Your task to perform on an android device: open app "Venmo" (install if not already installed), go to login, and select forgot password Image 0: 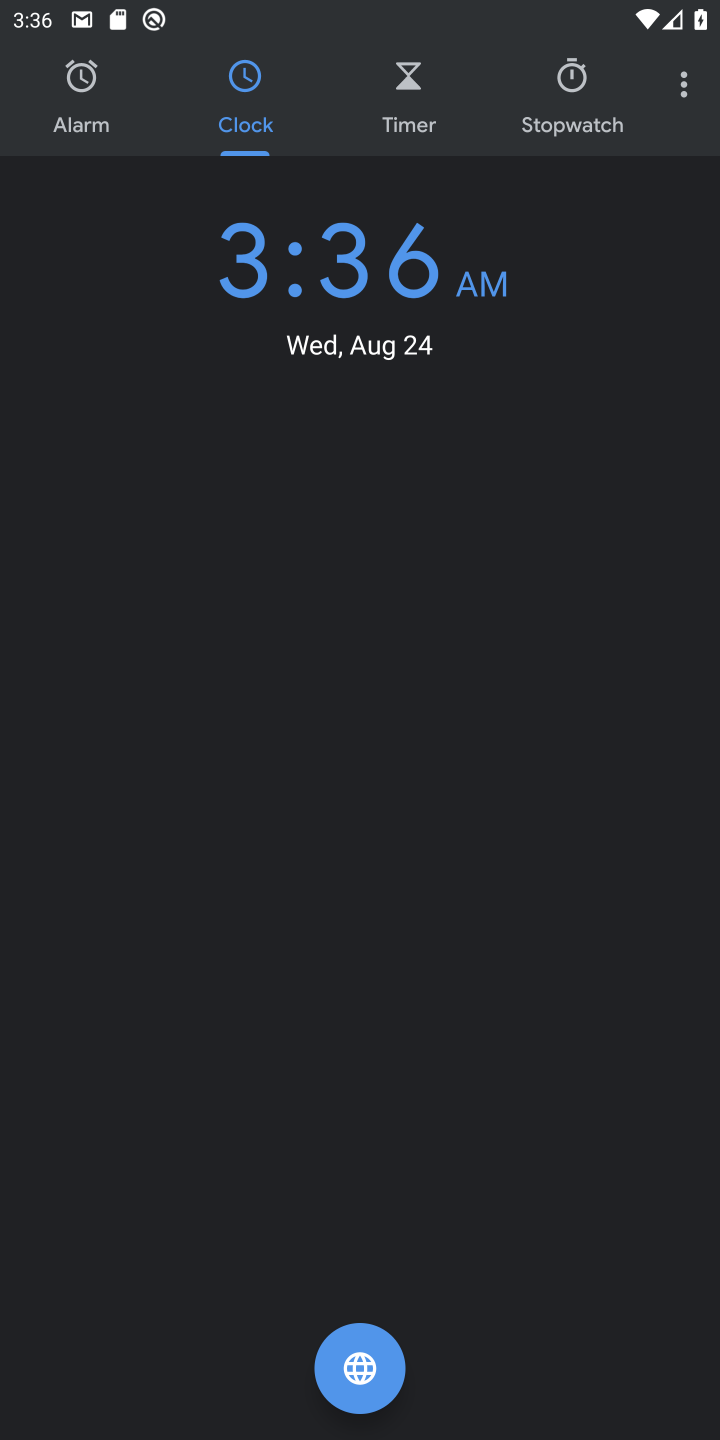
Step 0: press back button
Your task to perform on an android device: open app "Venmo" (install if not already installed), go to login, and select forgot password Image 1: 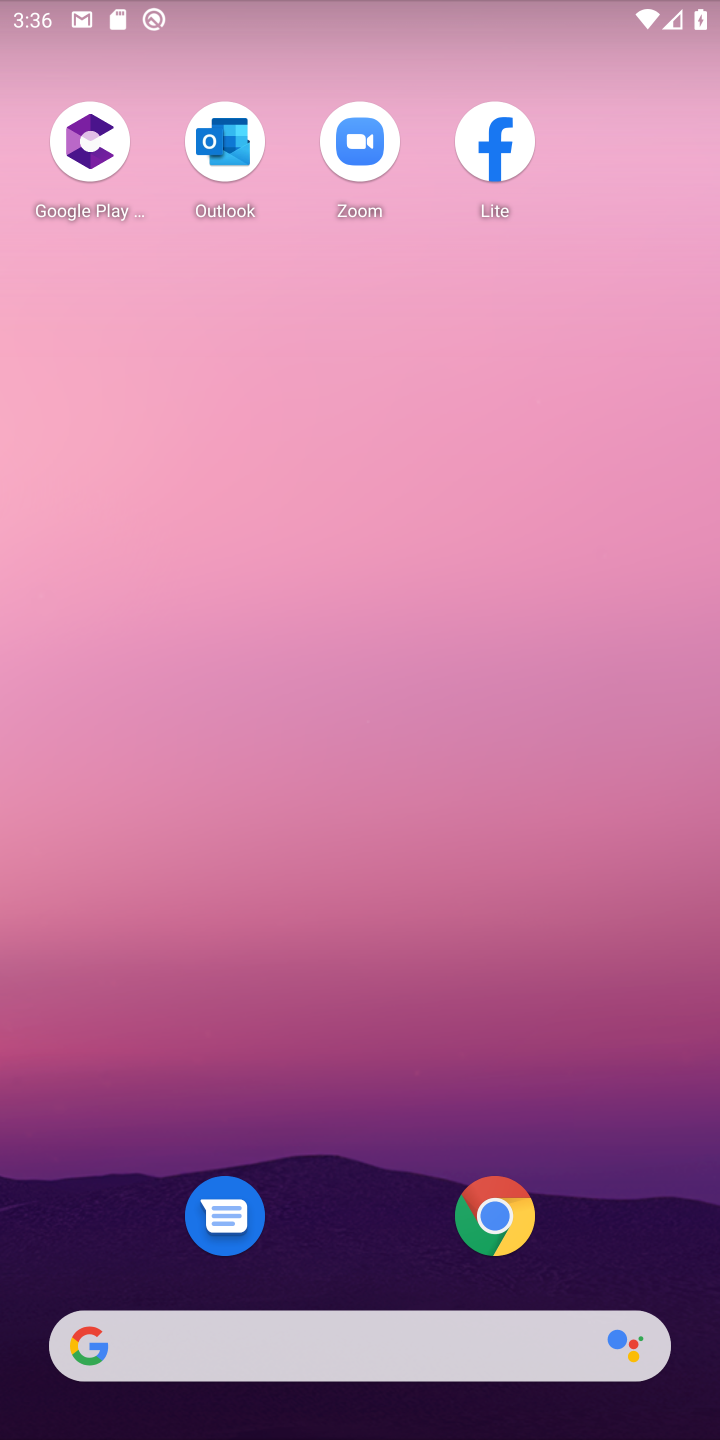
Step 1: press back button
Your task to perform on an android device: open app "Venmo" (install if not already installed), go to login, and select forgot password Image 2: 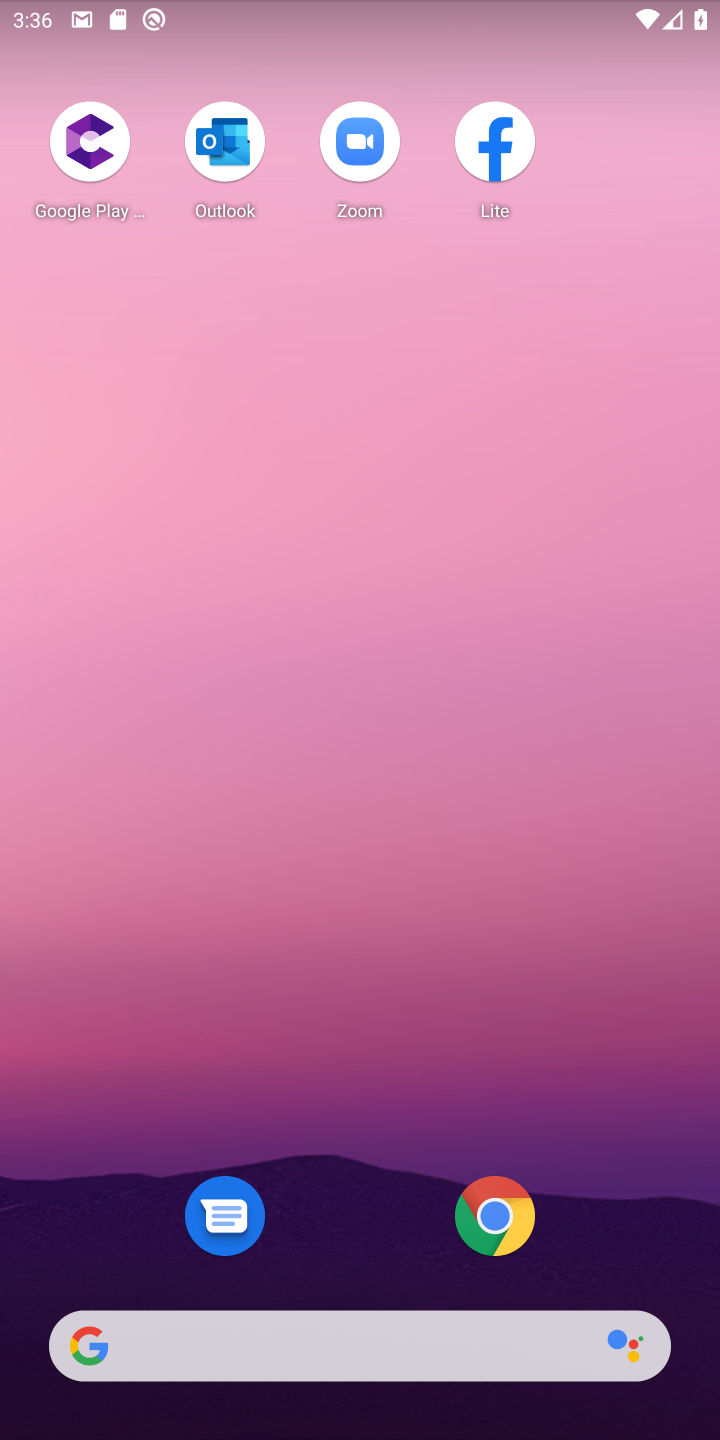
Step 2: drag from (380, 1030) to (547, 190)
Your task to perform on an android device: open app "Venmo" (install if not already installed), go to login, and select forgot password Image 3: 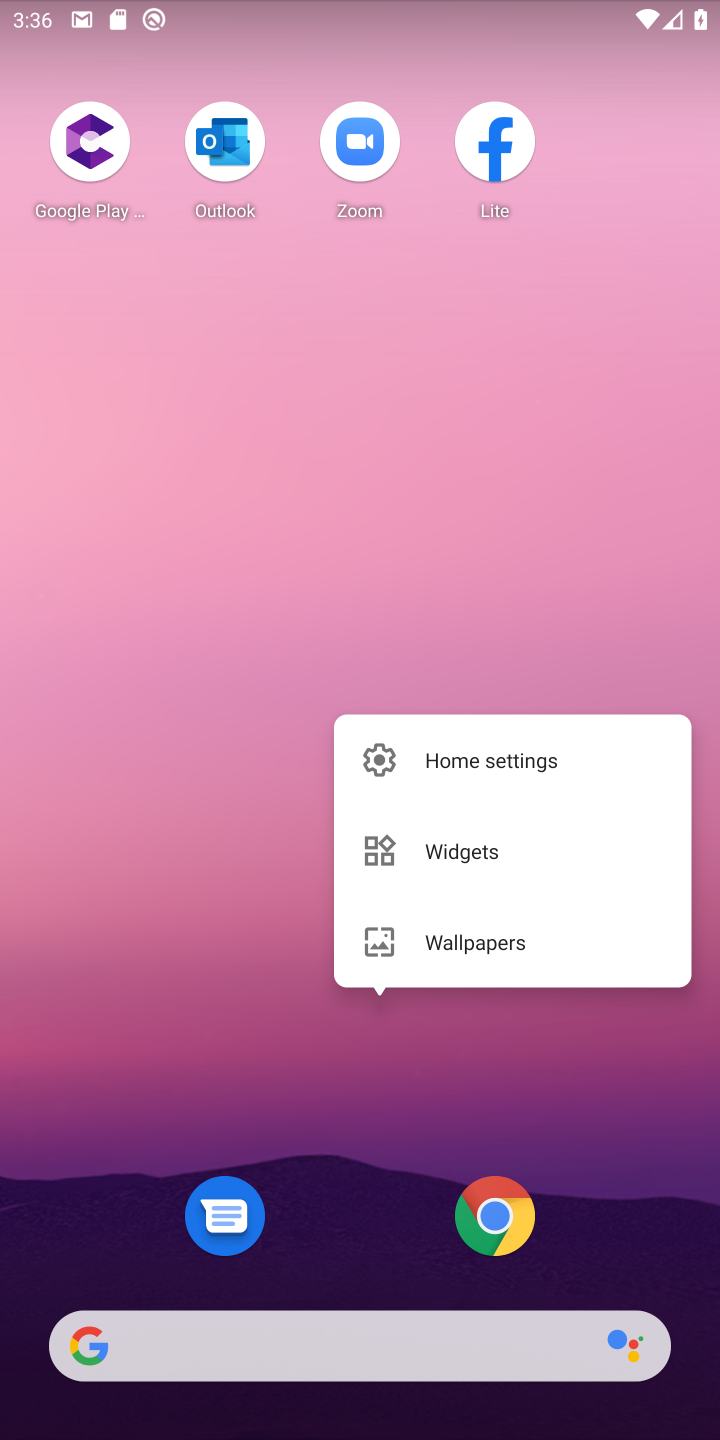
Step 3: click (190, 910)
Your task to perform on an android device: open app "Venmo" (install if not already installed), go to login, and select forgot password Image 4: 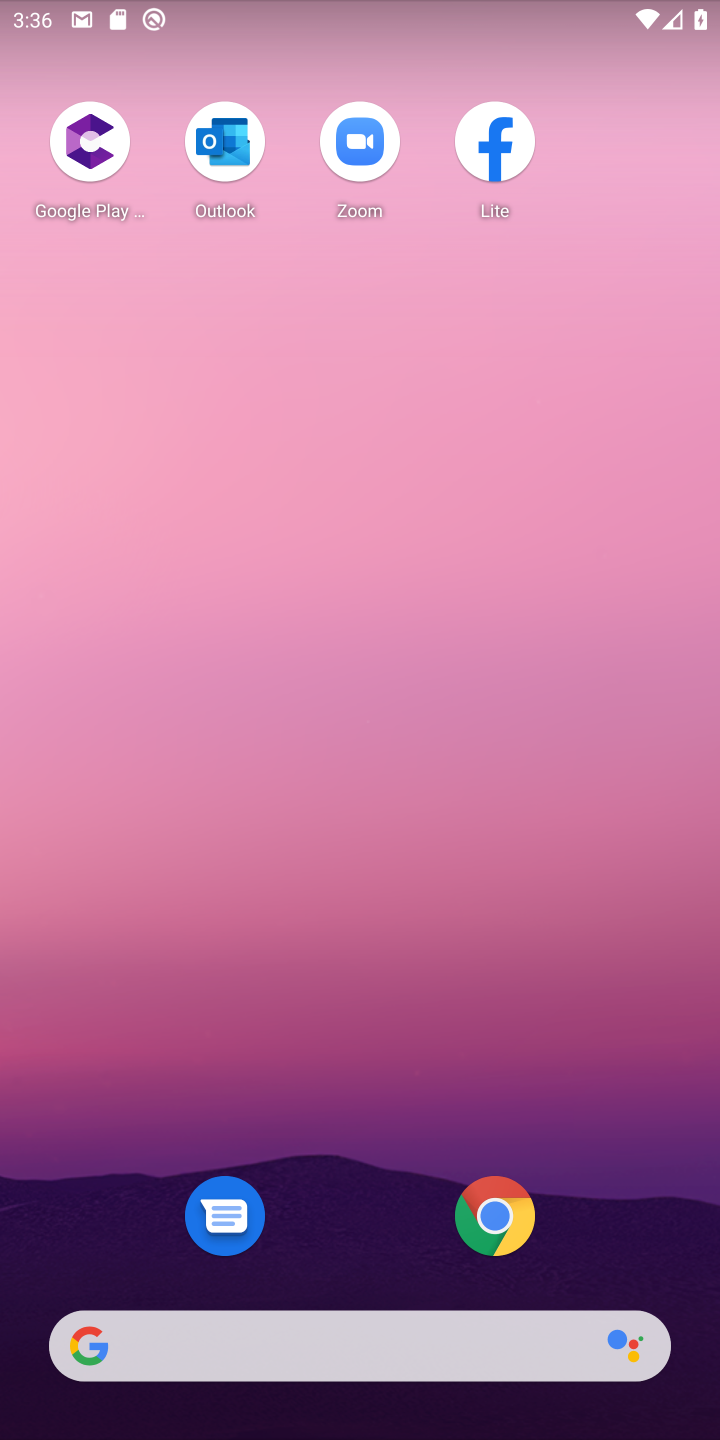
Step 4: drag from (316, 859) to (317, 313)
Your task to perform on an android device: open app "Venmo" (install if not already installed), go to login, and select forgot password Image 5: 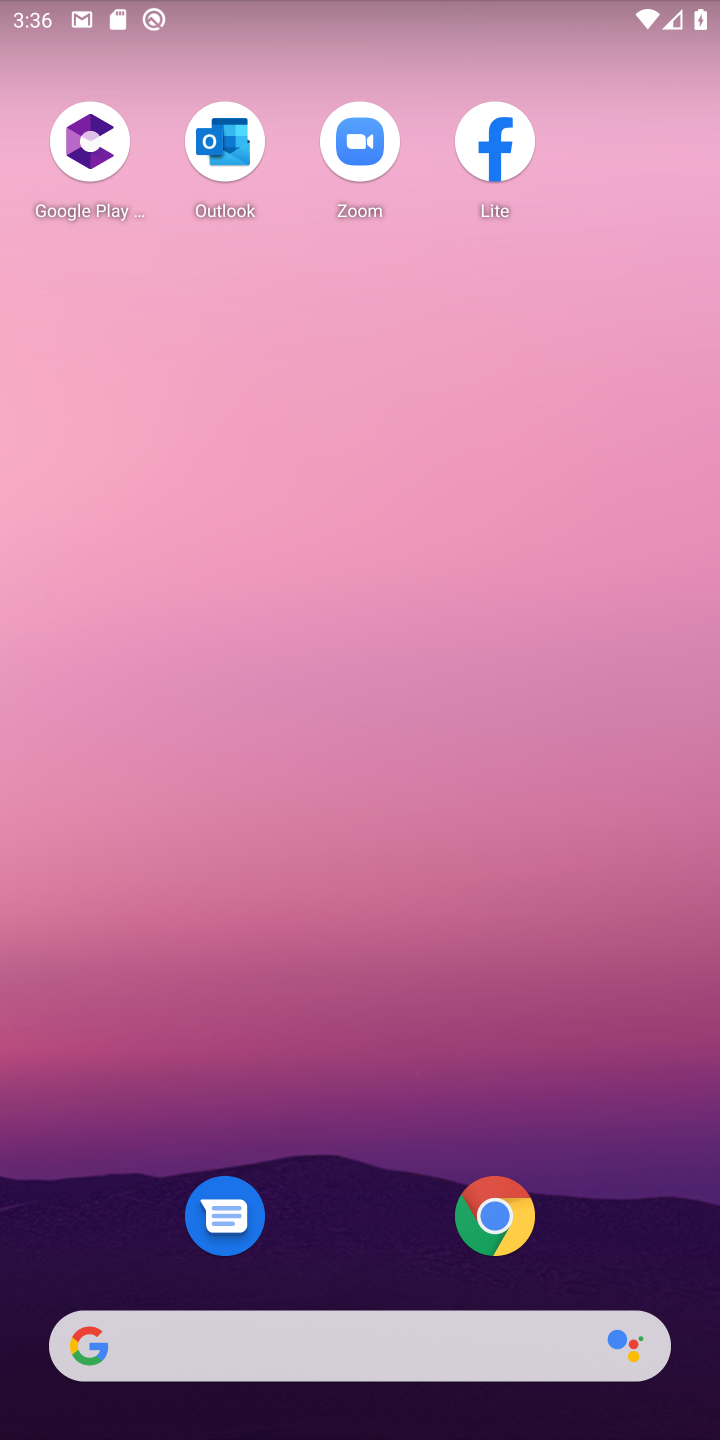
Step 5: drag from (374, 1144) to (493, 120)
Your task to perform on an android device: open app "Venmo" (install if not already installed), go to login, and select forgot password Image 6: 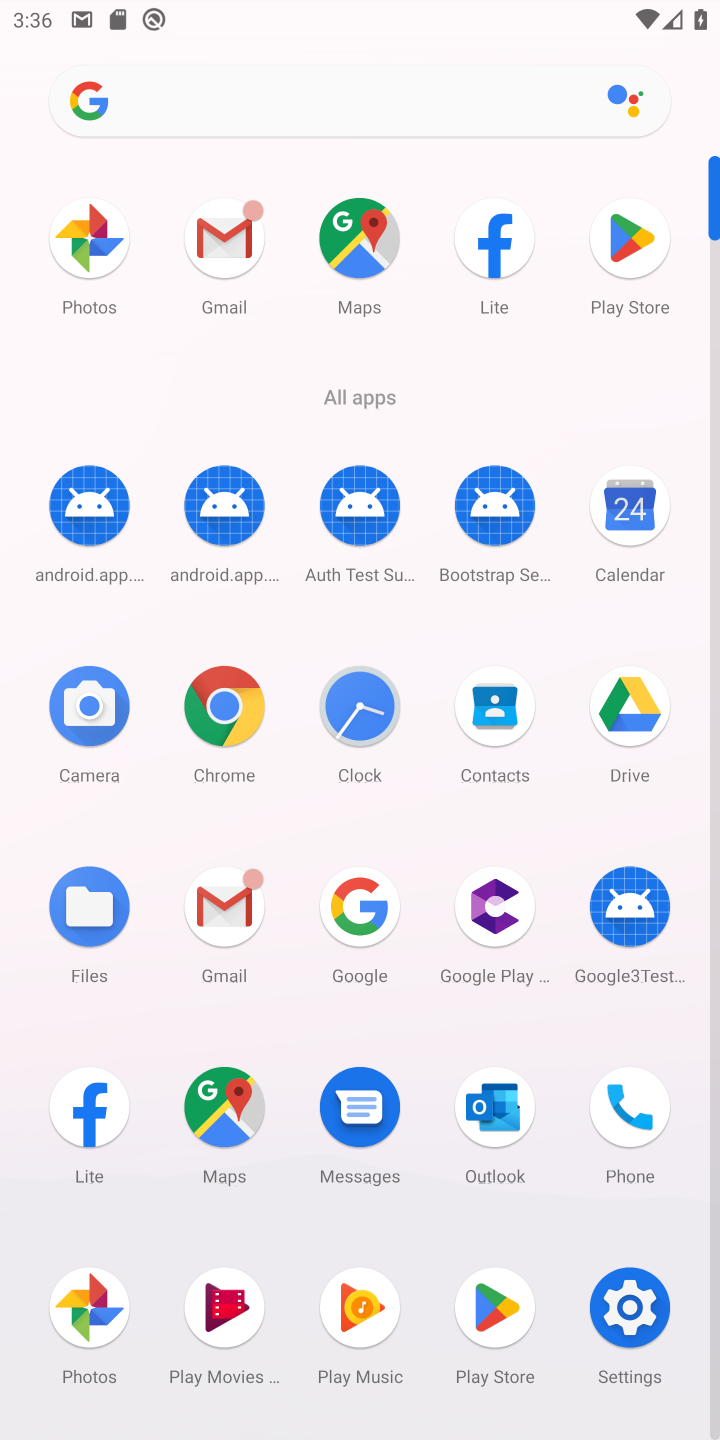
Step 6: click (626, 242)
Your task to perform on an android device: open app "Venmo" (install if not already installed), go to login, and select forgot password Image 7: 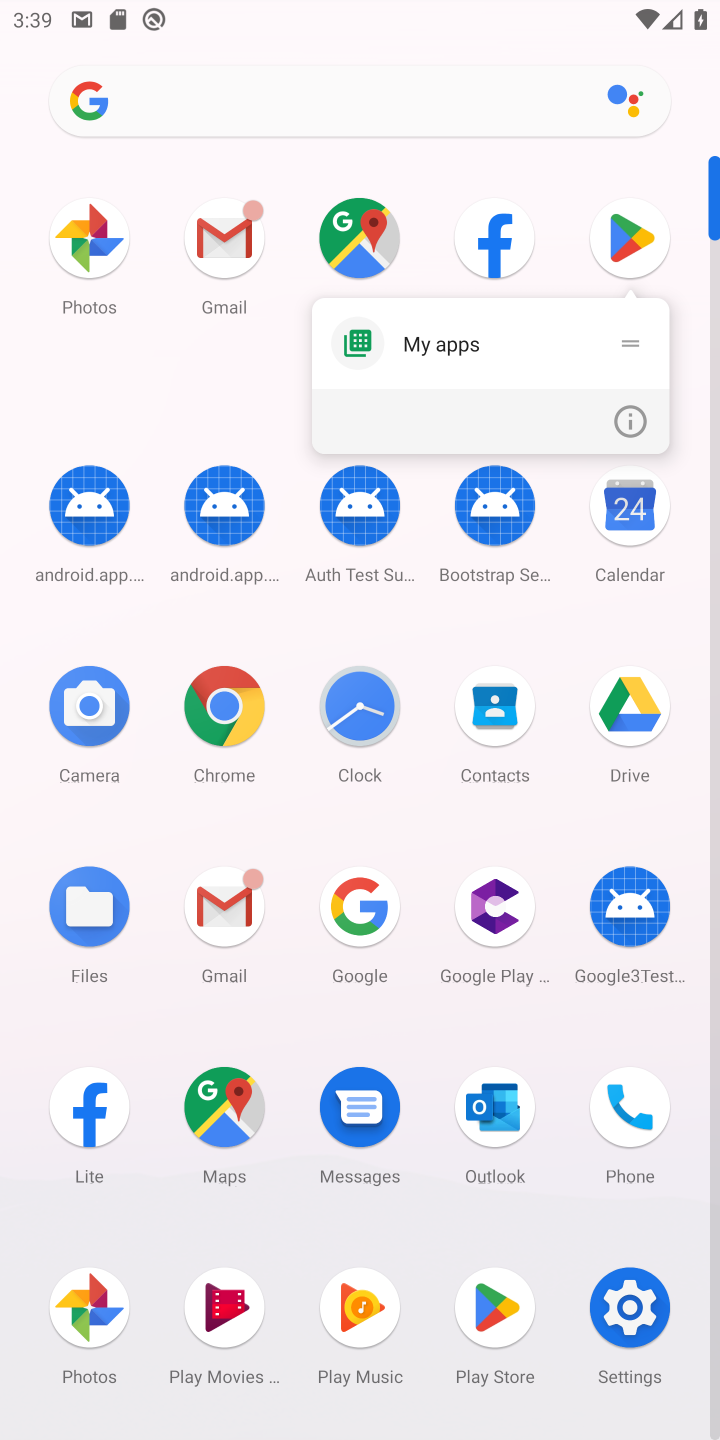
Step 7: click (635, 245)
Your task to perform on an android device: open app "Venmo" (install if not already installed), go to login, and select forgot password Image 8: 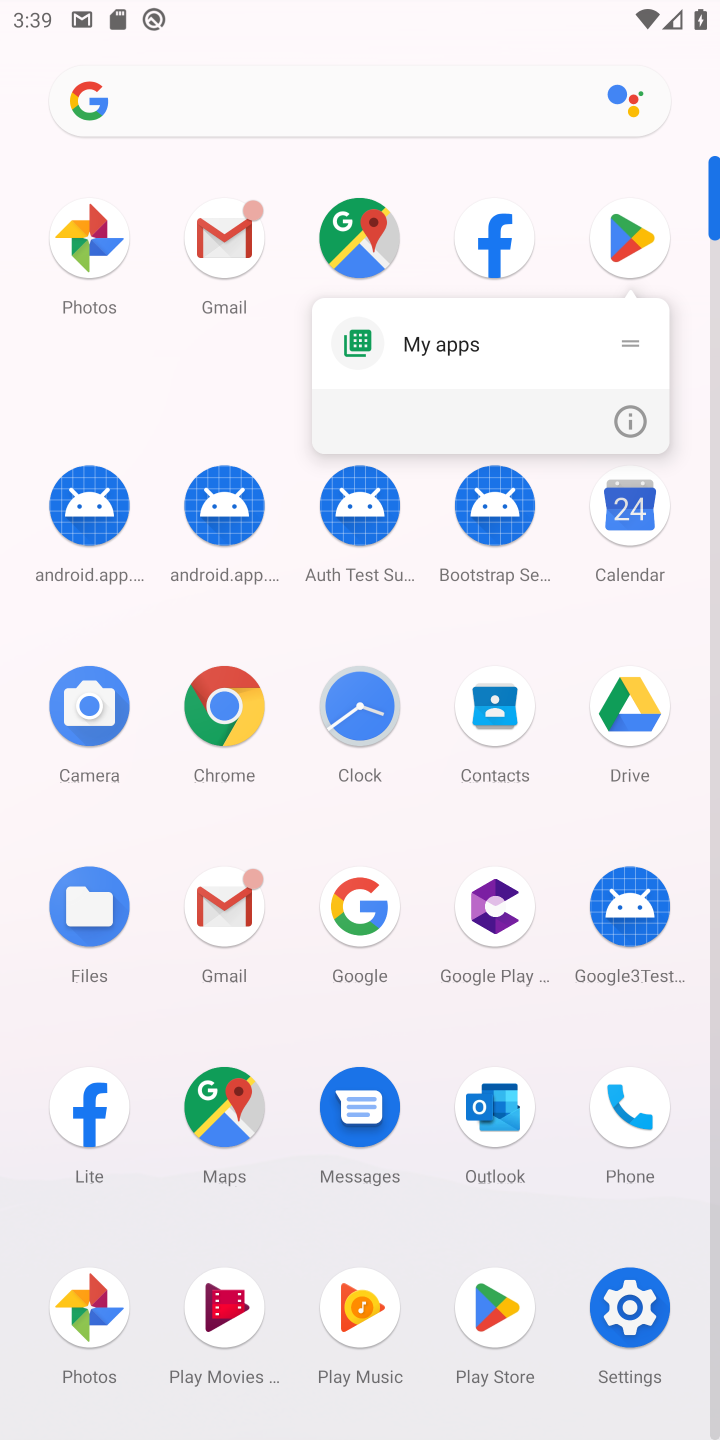
Step 8: click (630, 227)
Your task to perform on an android device: open app "Venmo" (install if not already installed), go to login, and select forgot password Image 9: 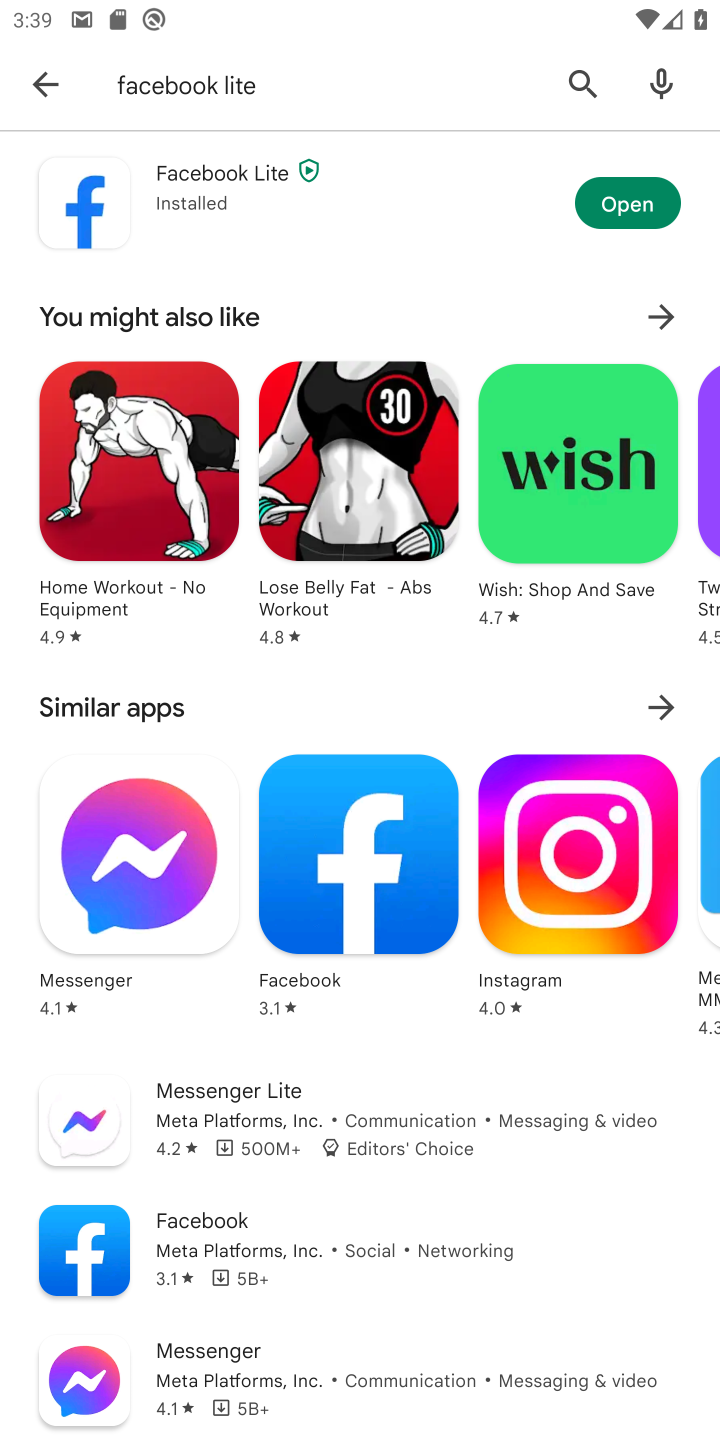
Step 9: click (580, 64)
Your task to perform on an android device: open app "Venmo" (install if not already installed), go to login, and select forgot password Image 10: 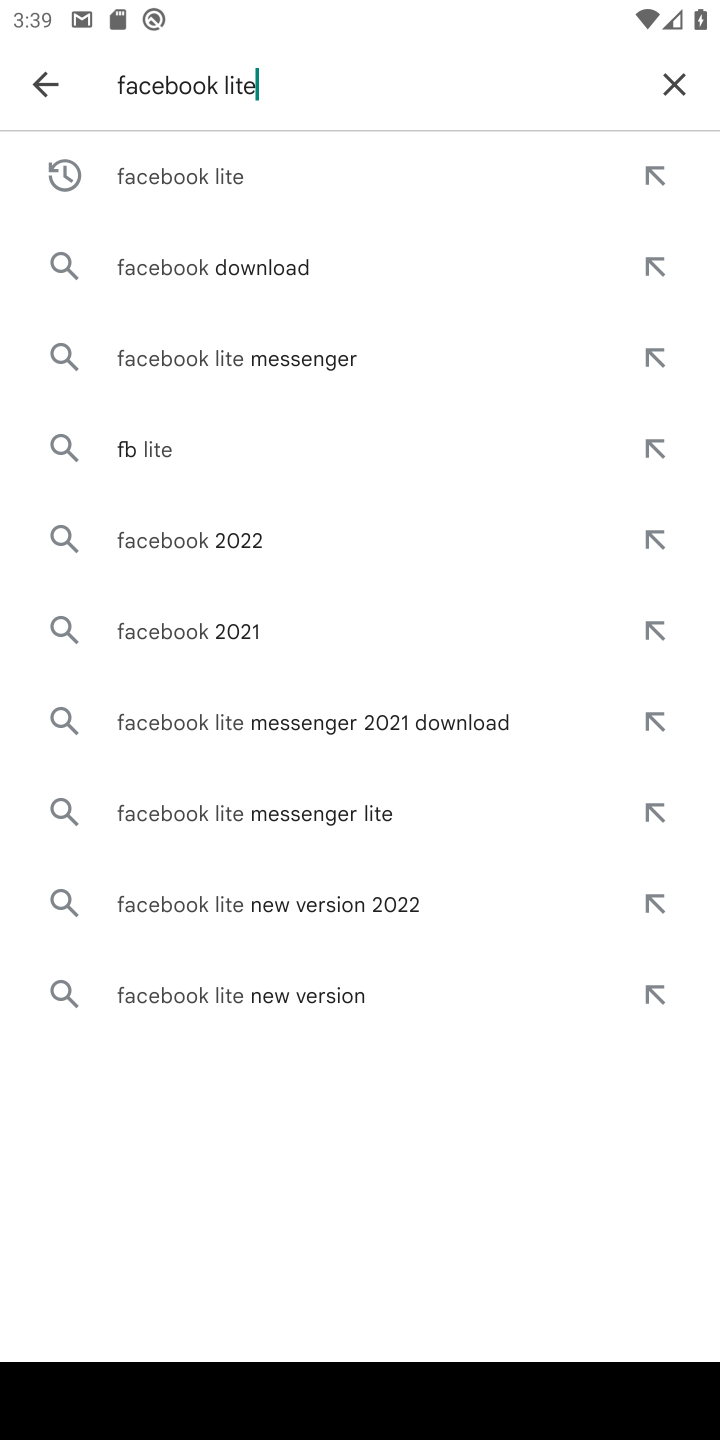
Step 10: click (666, 84)
Your task to perform on an android device: open app "Venmo" (install if not already installed), go to login, and select forgot password Image 11: 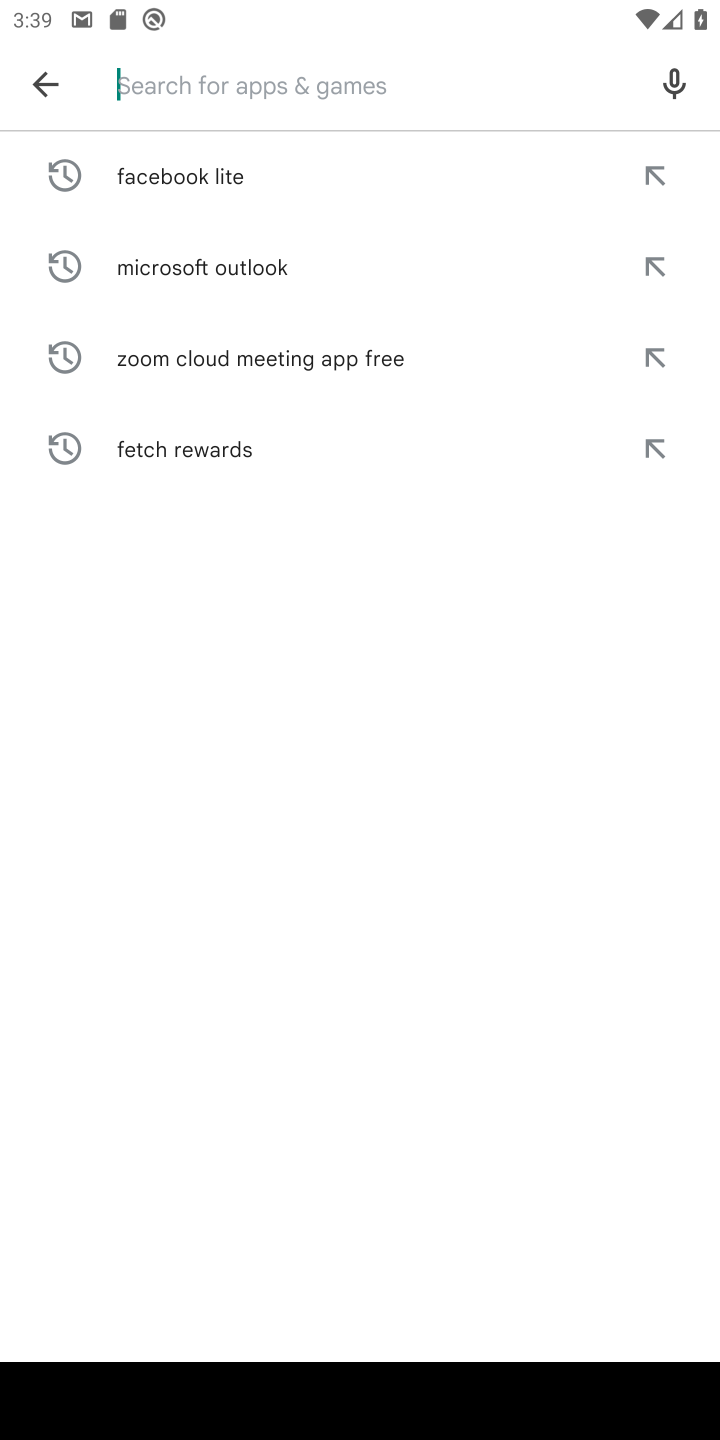
Step 11: click (199, 70)
Your task to perform on an android device: open app "Venmo" (install if not already installed), go to login, and select forgot password Image 12: 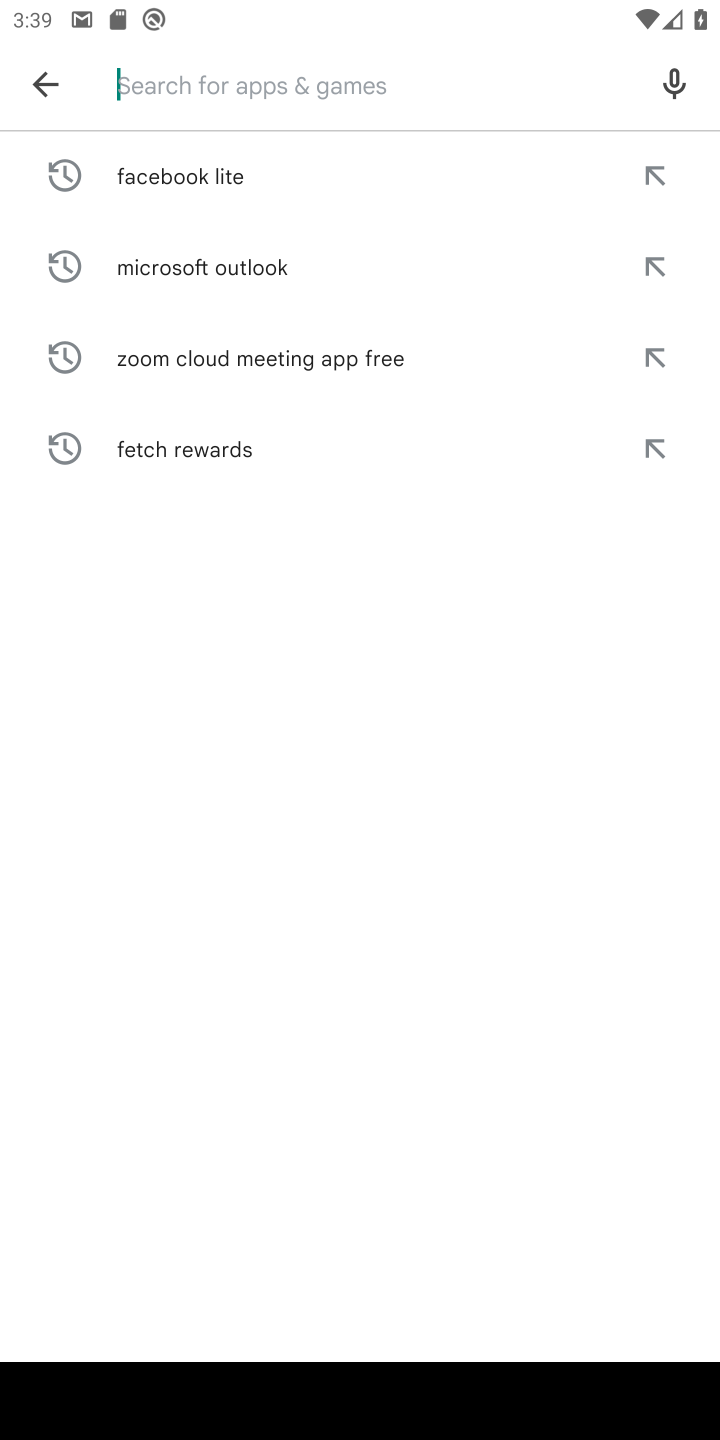
Step 12: type "Venmo"
Your task to perform on an android device: open app "Venmo" (install if not already installed), go to login, and select forgot password Image 13: 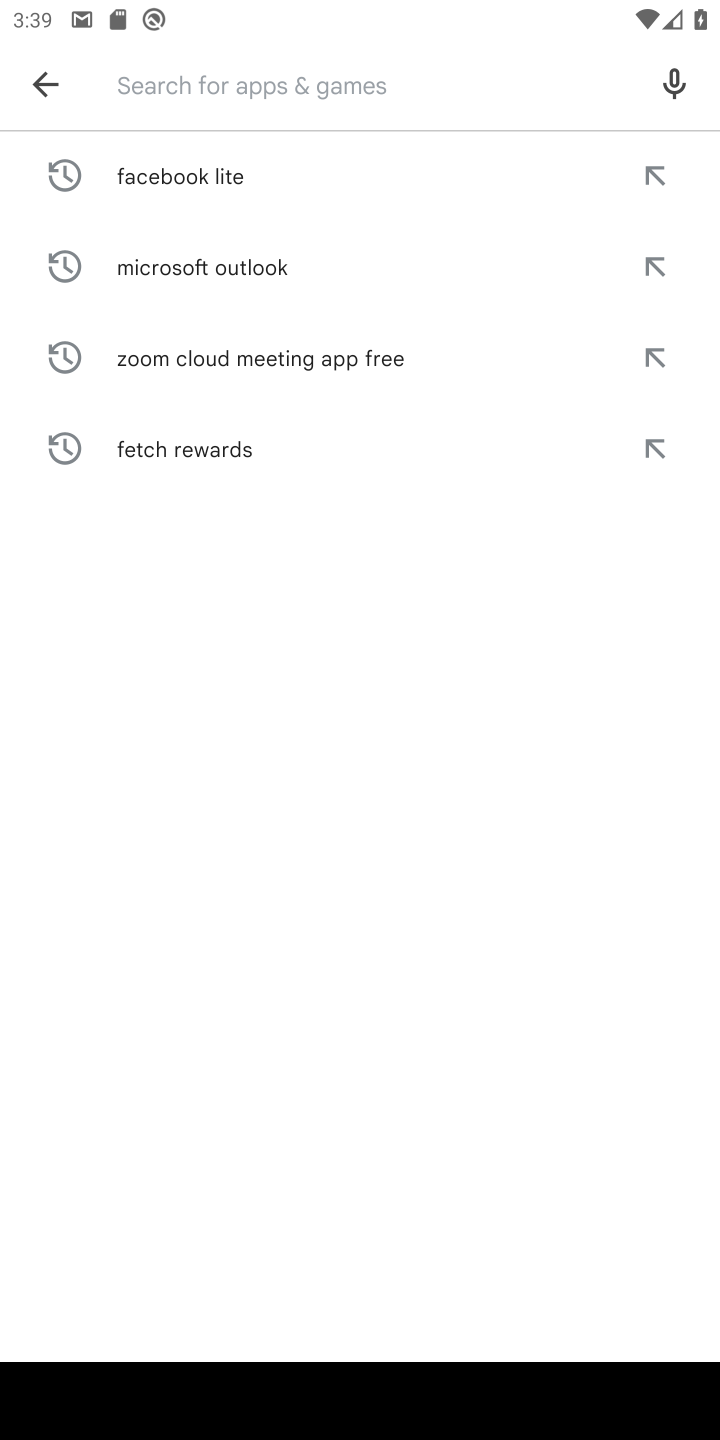
Step 13: click (460, 1060)
Your task to perform on an android device: open app "Venmo" (install if not already installed), go to login, and select forgot password Image 14: 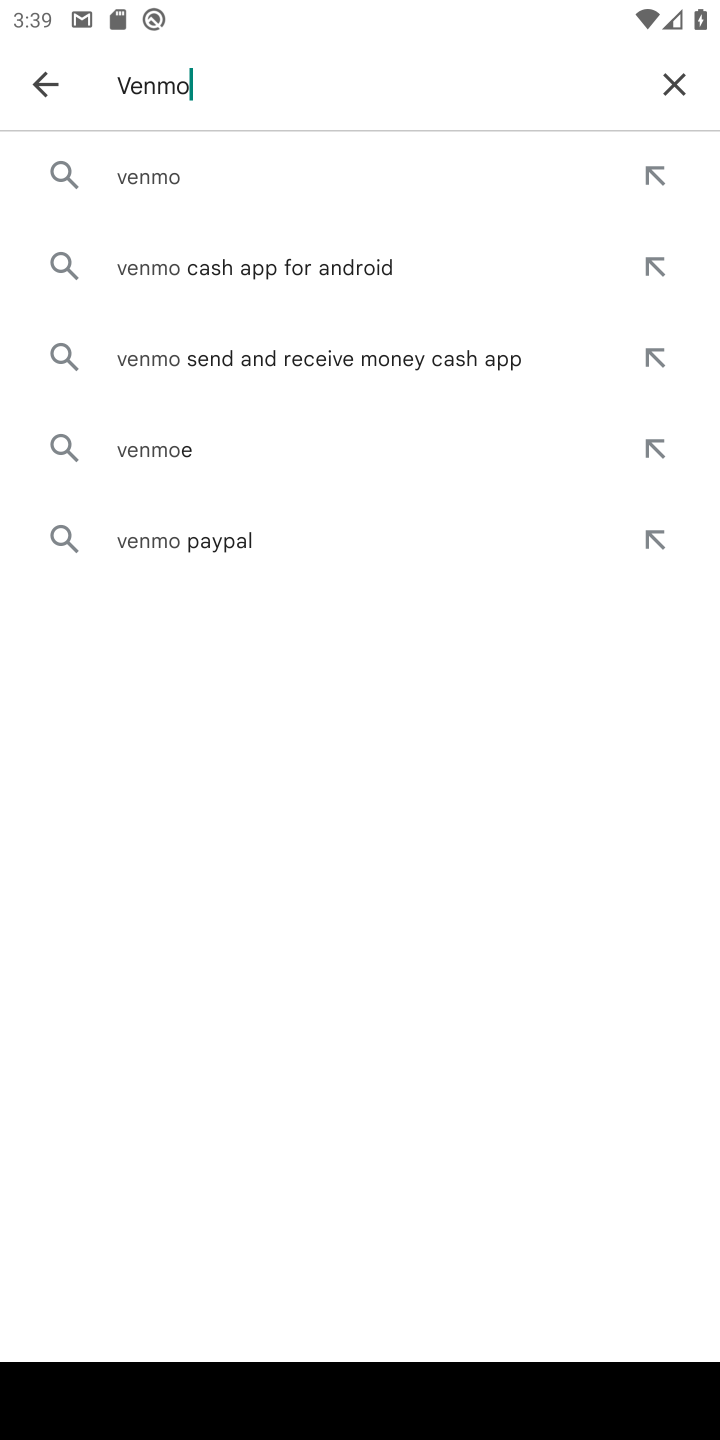
Step 14: click (167, 155)
Your task to perform on an android device: open app "Venmo" (install if not already installed), go to login, and select forgot password Image 15: 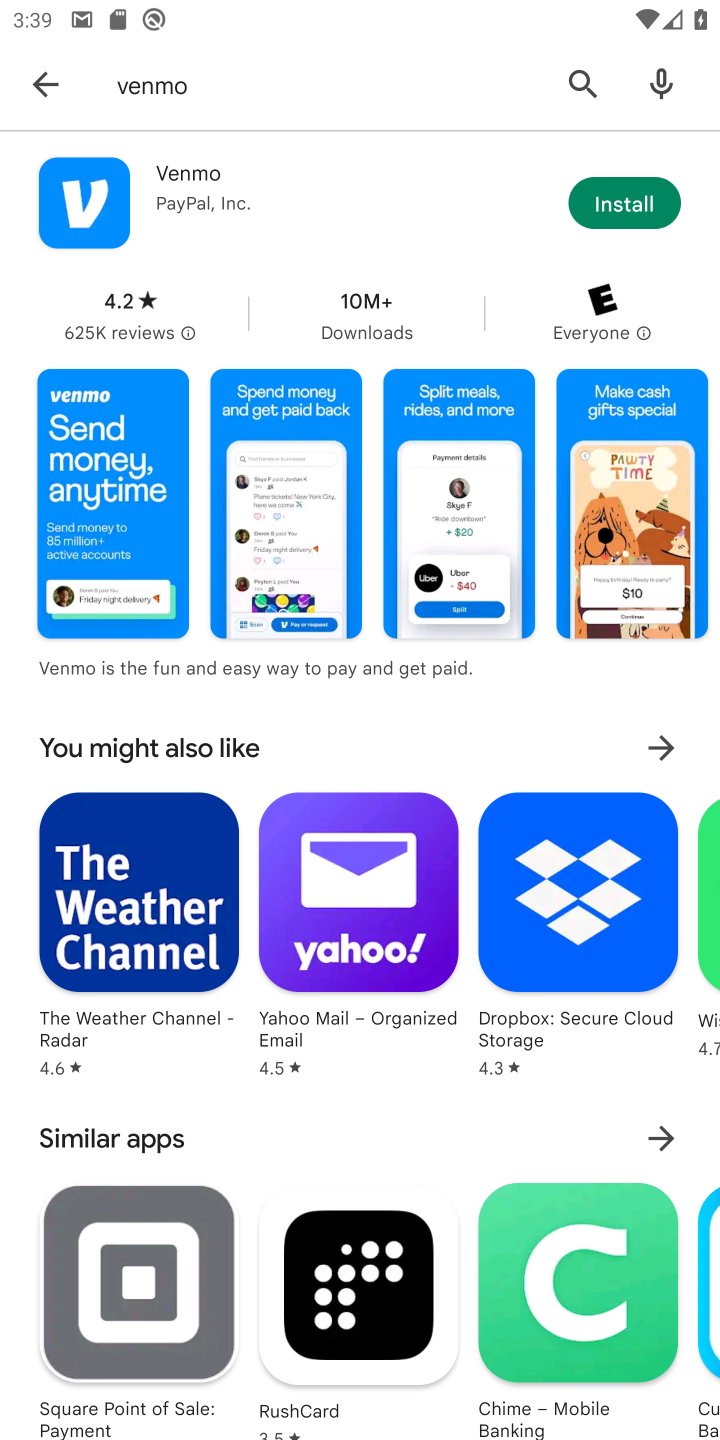
Step 15: click (639, 207)
Your task to perform on an android device: open app "Venmo" (install if not already installed), go to login, and select forgot password Image 16: 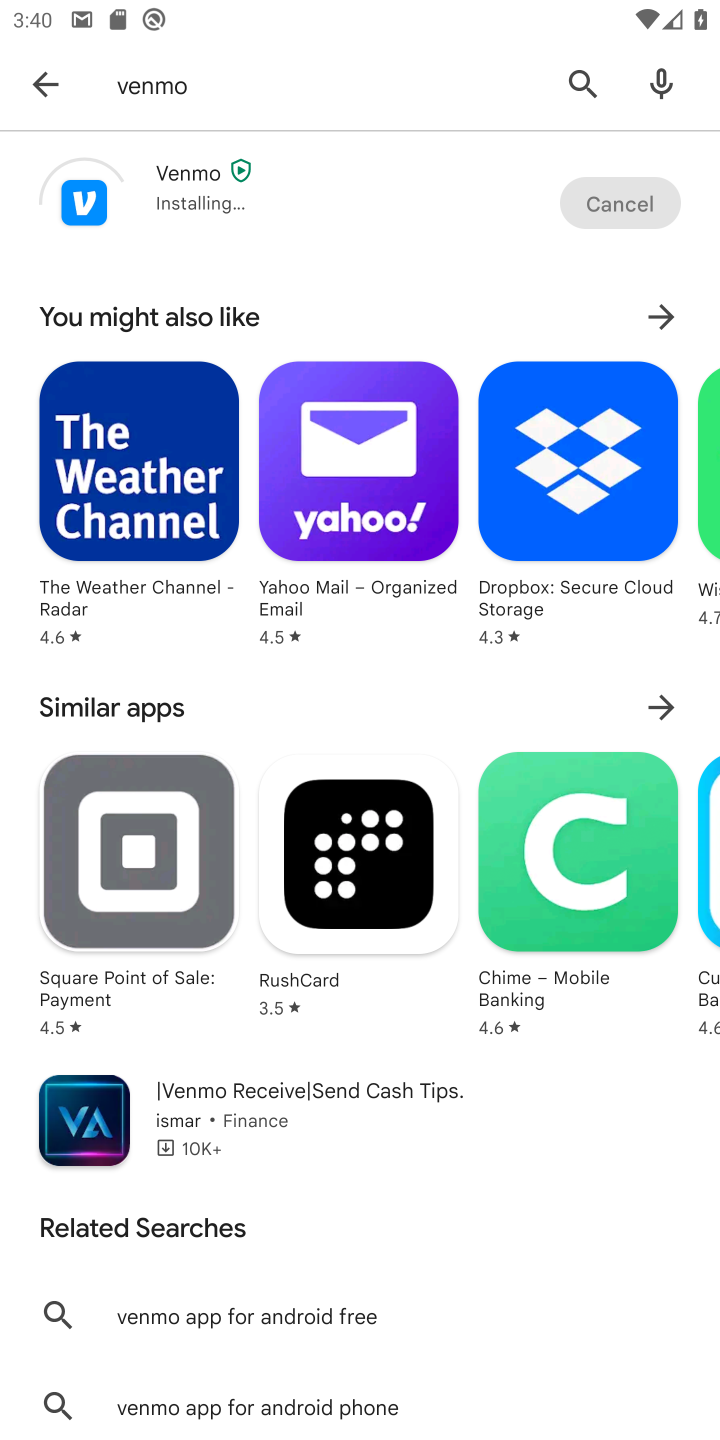
Step 16: press back button
Your task to perform on an android device: open app "Venmo" (install if not already installed), go to login, and select forgot password Image 17: 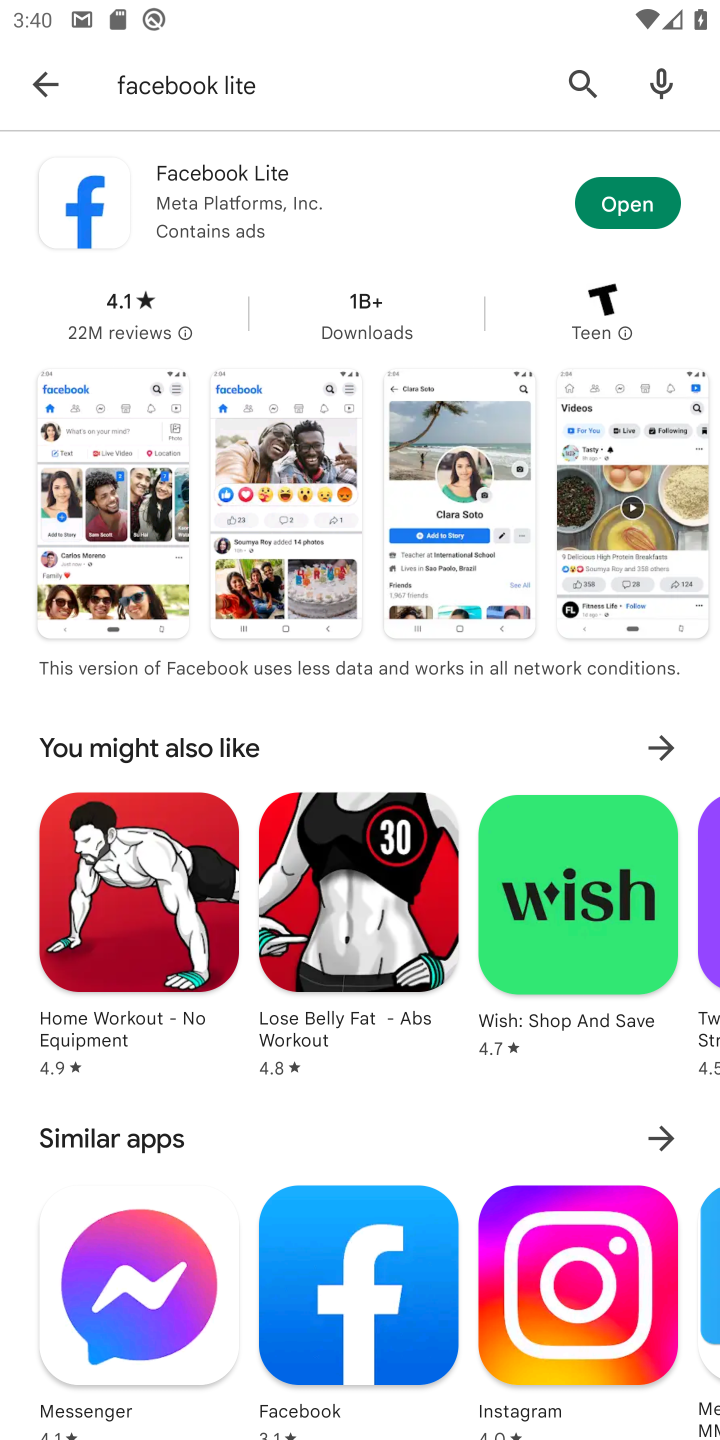
Step 17: click (577, 86)
Your task to perform on an android device: open app "Venmo" (install if not already installed), go to login, and select forgot password Image 18: 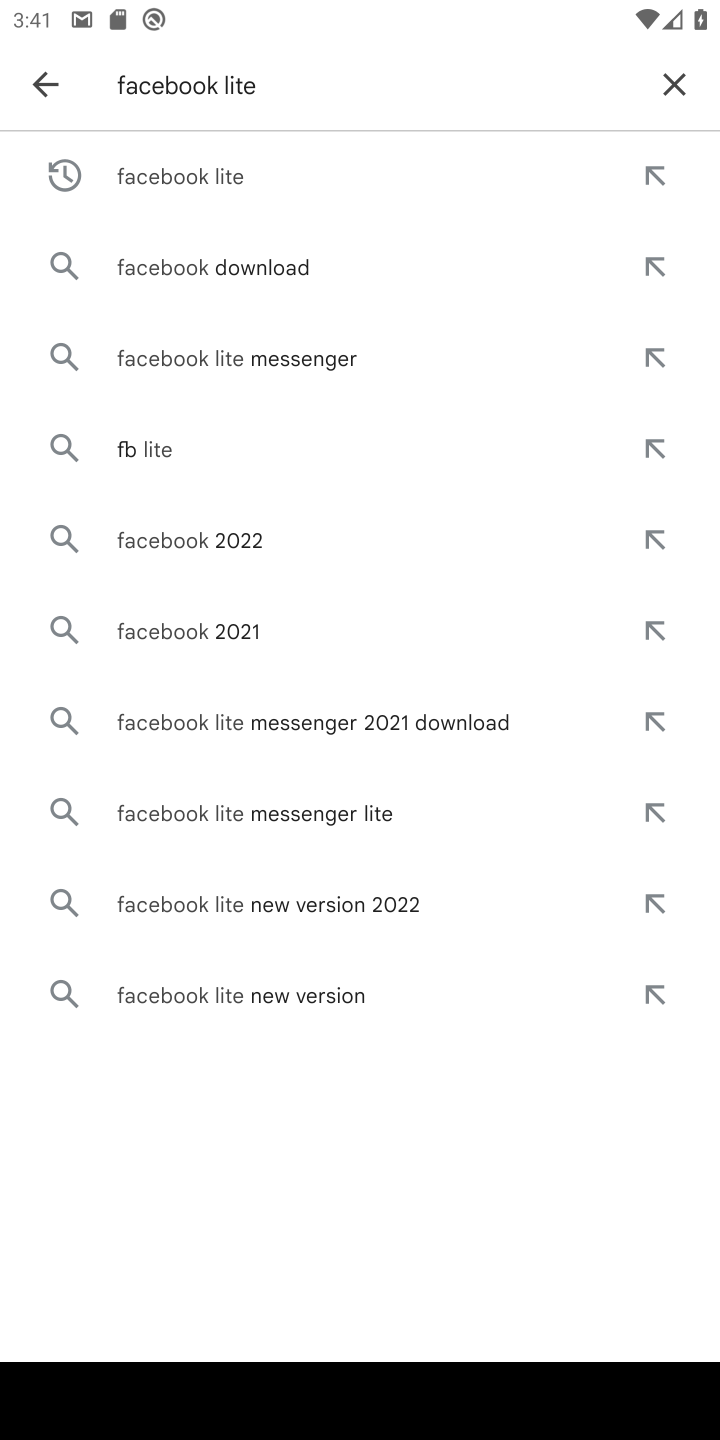
Step 18: click (679, 71)
Your task to perform on an android device: open app "Venmo" (install if not already installed), go to login, and select forgot password Image 19: 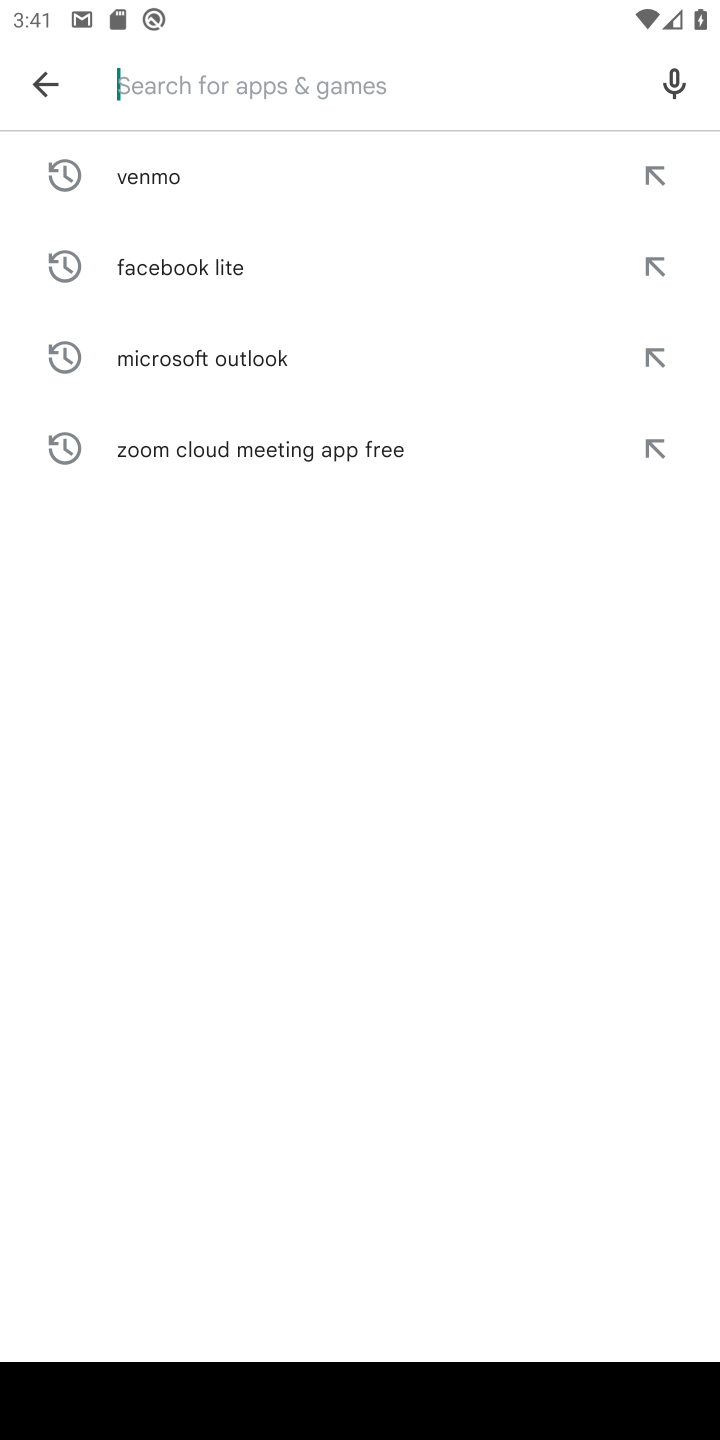
Step 19: click (172, 169)
Your task to perform on an android device: open app "Venmo" (install if not already installed), go to login, and select forgot password Image 20: 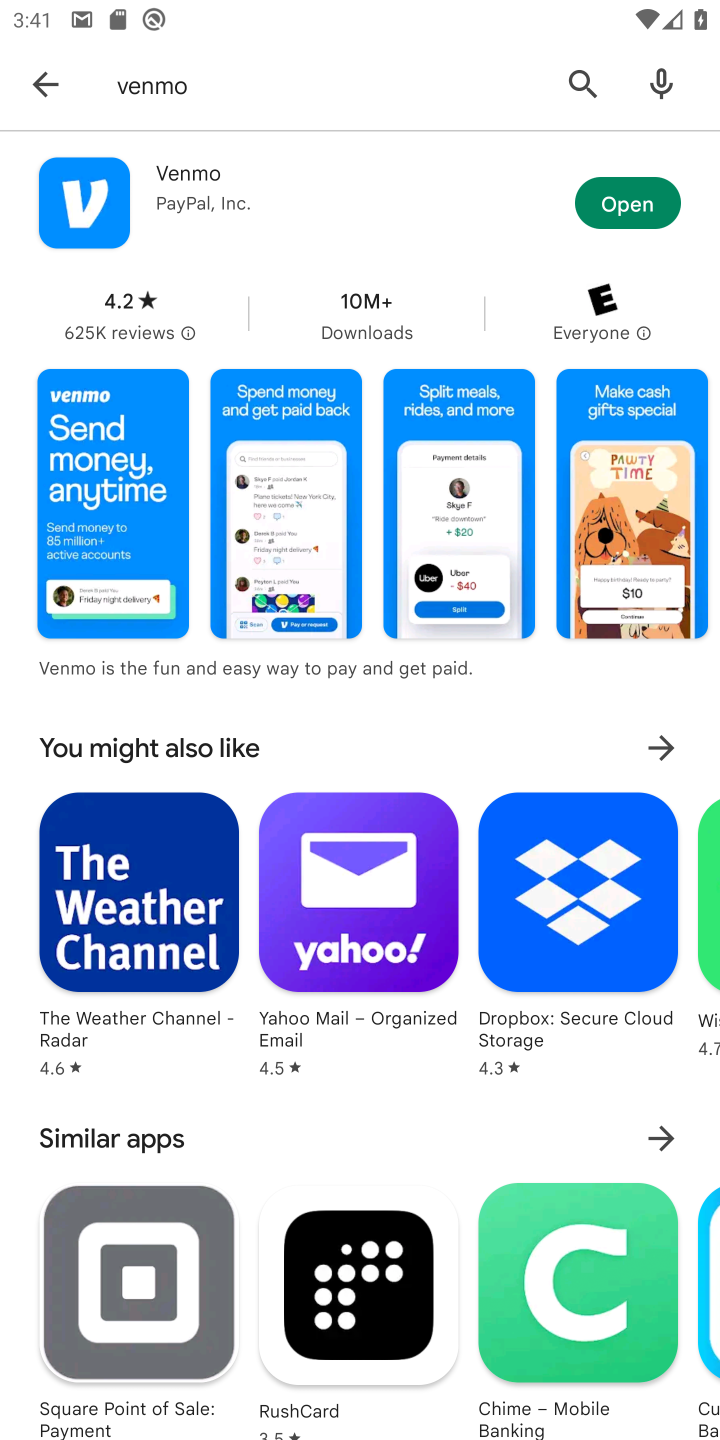
Step 20: click (633, 189)
Your task to perform on an android device: open app "Venmo" (install if not already installed), go to login, and select forgot password Image 21: 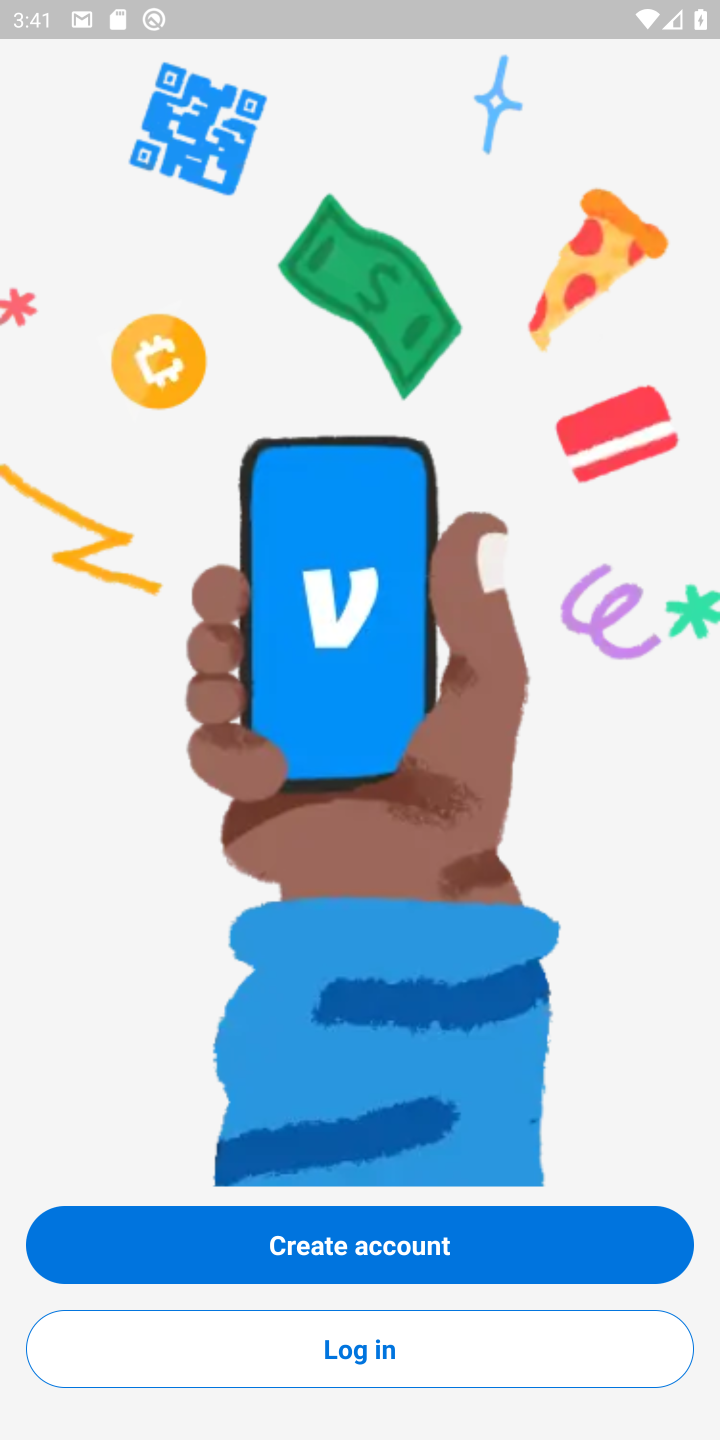
Step 21: click (337, 1371)
Your task to perform on an android device: open app "Venmo" (install if not already installed), go to login, and select forgot password Image 22: 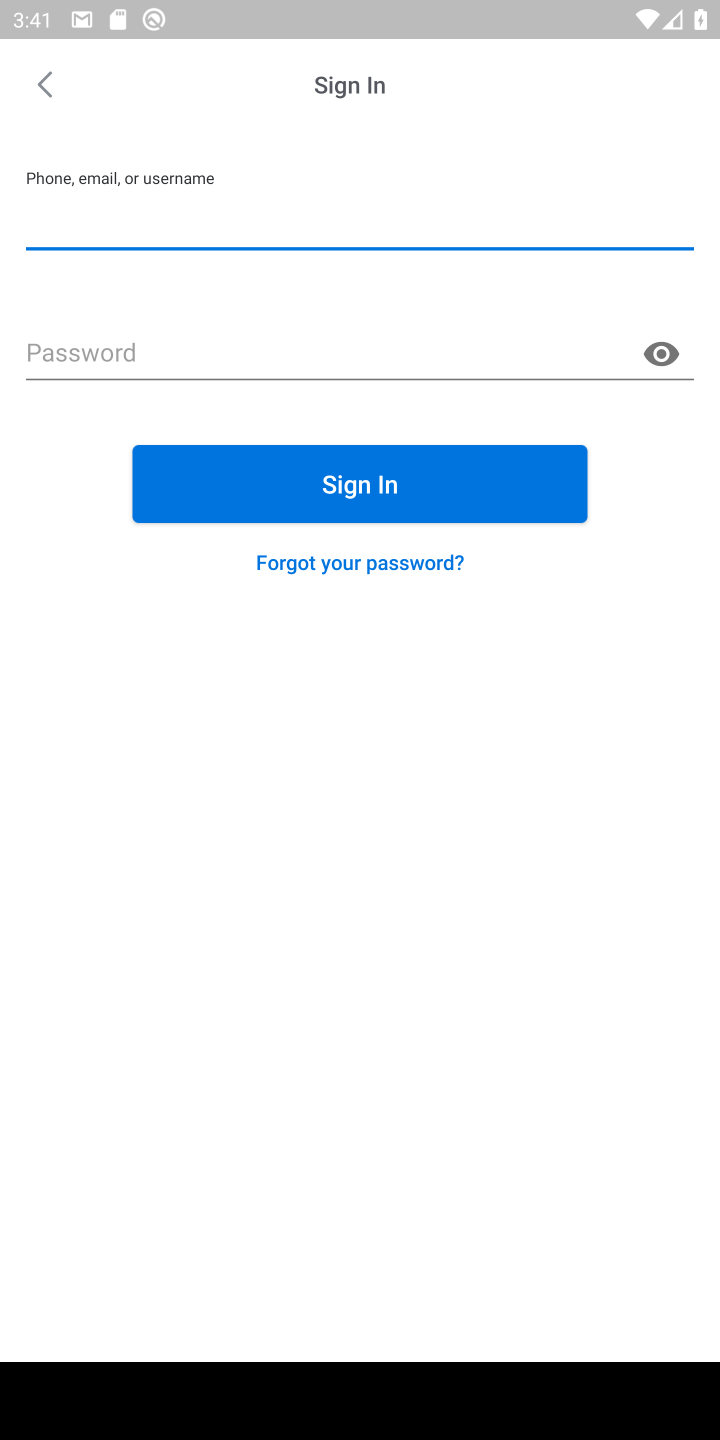
Step 22: click (341, 567)
Your task to perform on an android device: open app "Venmo" (install if not already installed), go to login, and select forgot password Image 23: 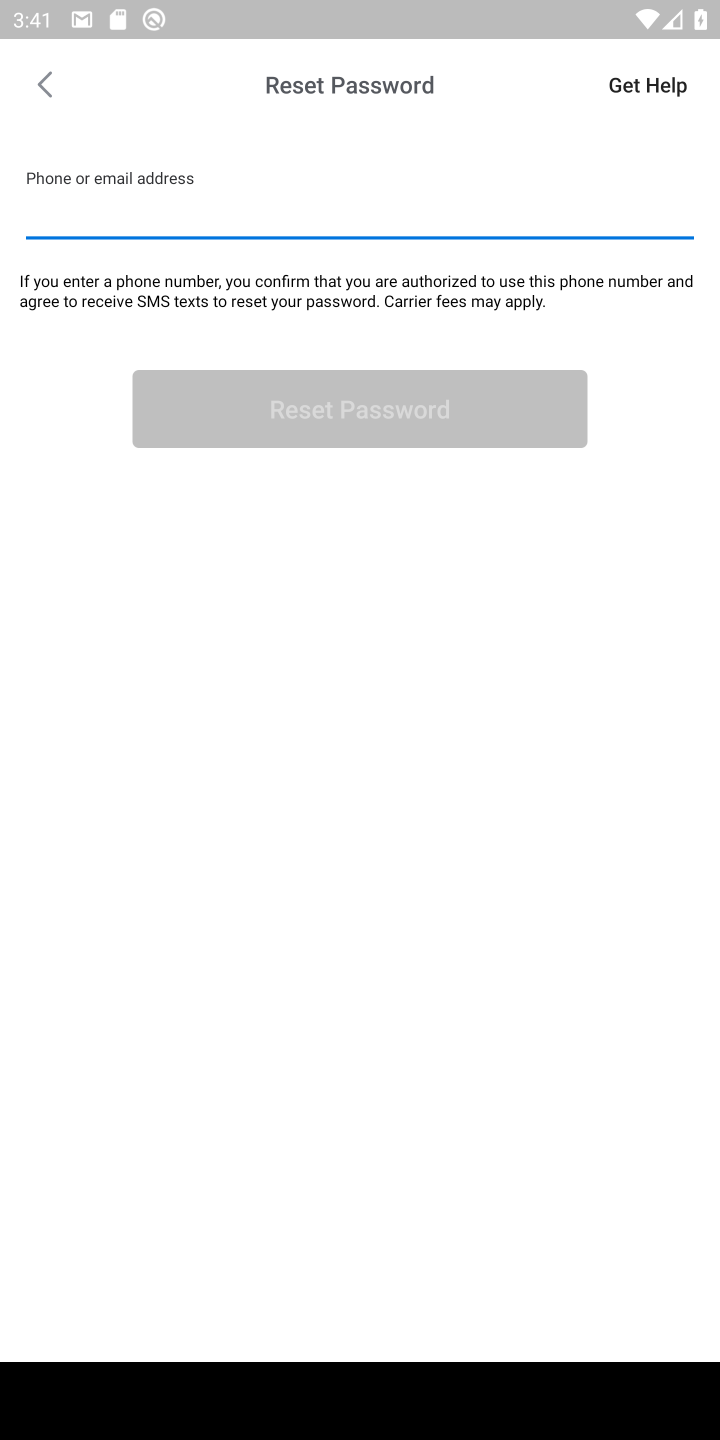
Step 23: task complete